Your task to perform on an android device: Clear all items from cart on bestbuy. Add "razer thresher" to the cart on bestbuy, then select checkout. Image 0: 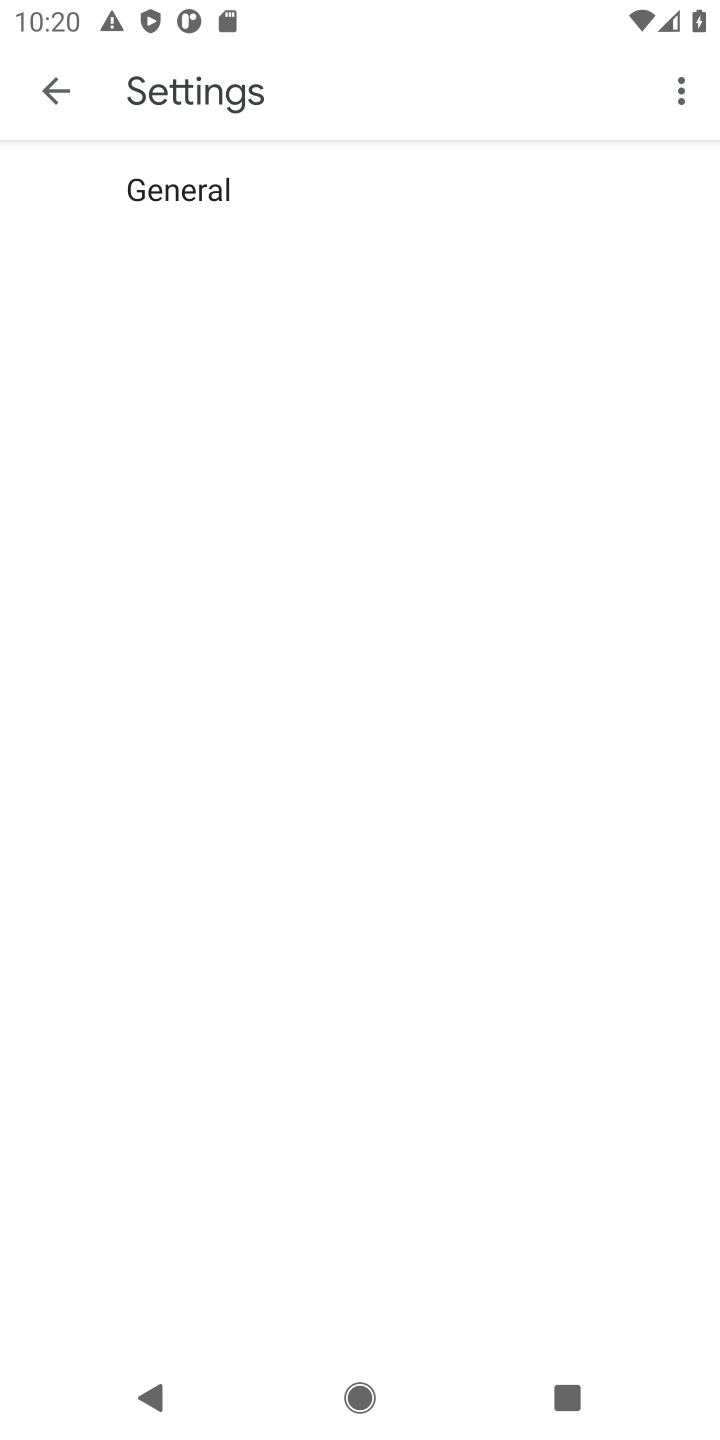
Step 0: press home button
Your task to perform on an android device: Clear all items from cart on bestbuy. Add "razer thresher" to the cart on bestbuy, then select checkout. Image 1: 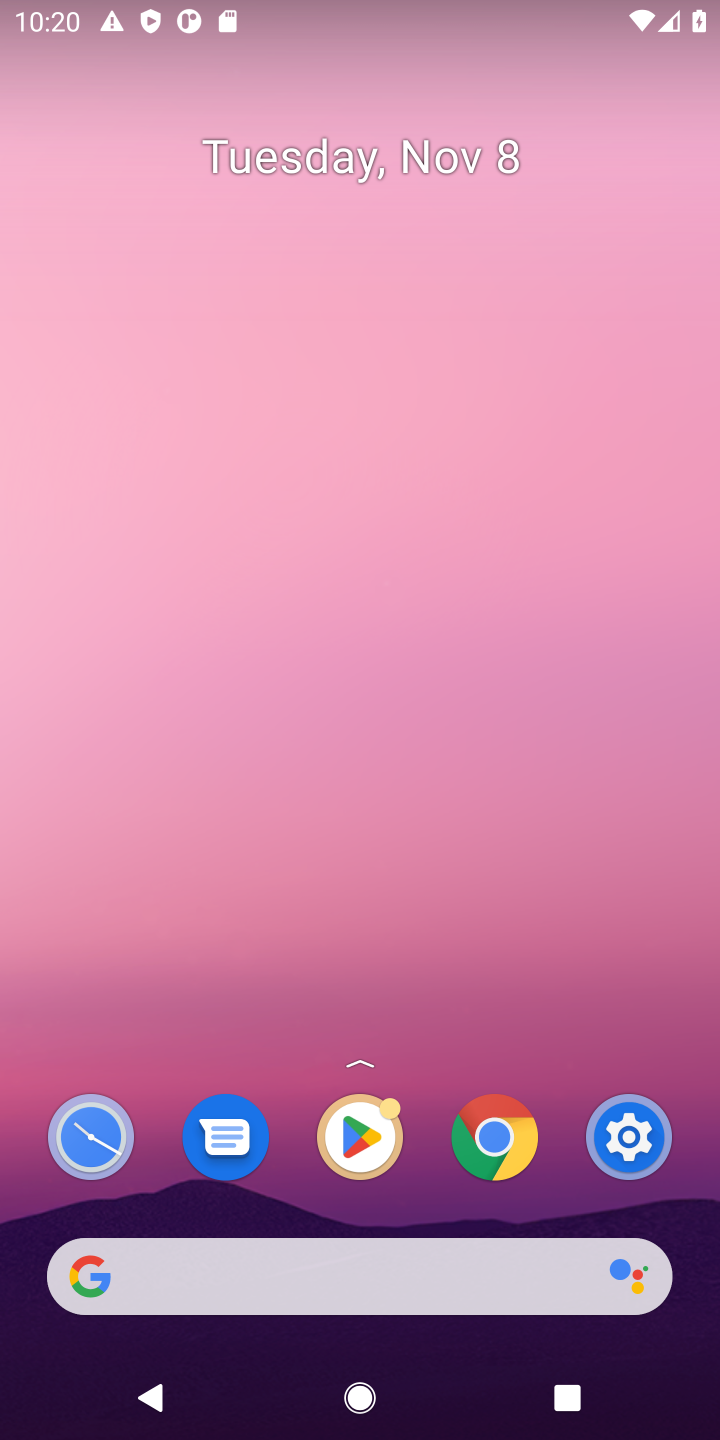
Step 1: click (523, 1148)
Your task to perform on an android device: Clear all items from cart on bestbuy. Add "razer thresher" to the cart on bestbuy, then select checkout. Image 2: 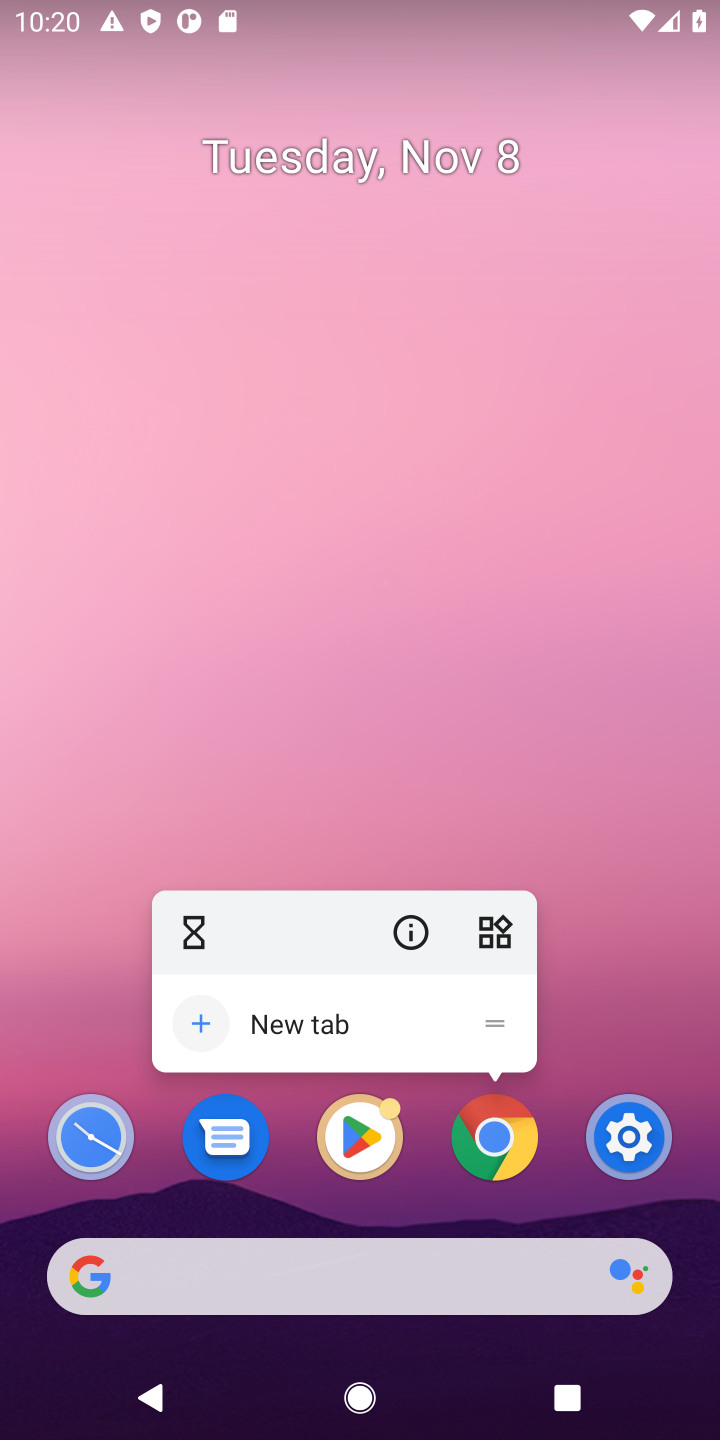
Step 2: click (510, 1132)
Your task to perform on an android device: Clear all items from cart on bestbuy. Add "razer thresher" to the cart on bestbuy, then select checkout. Image 3: 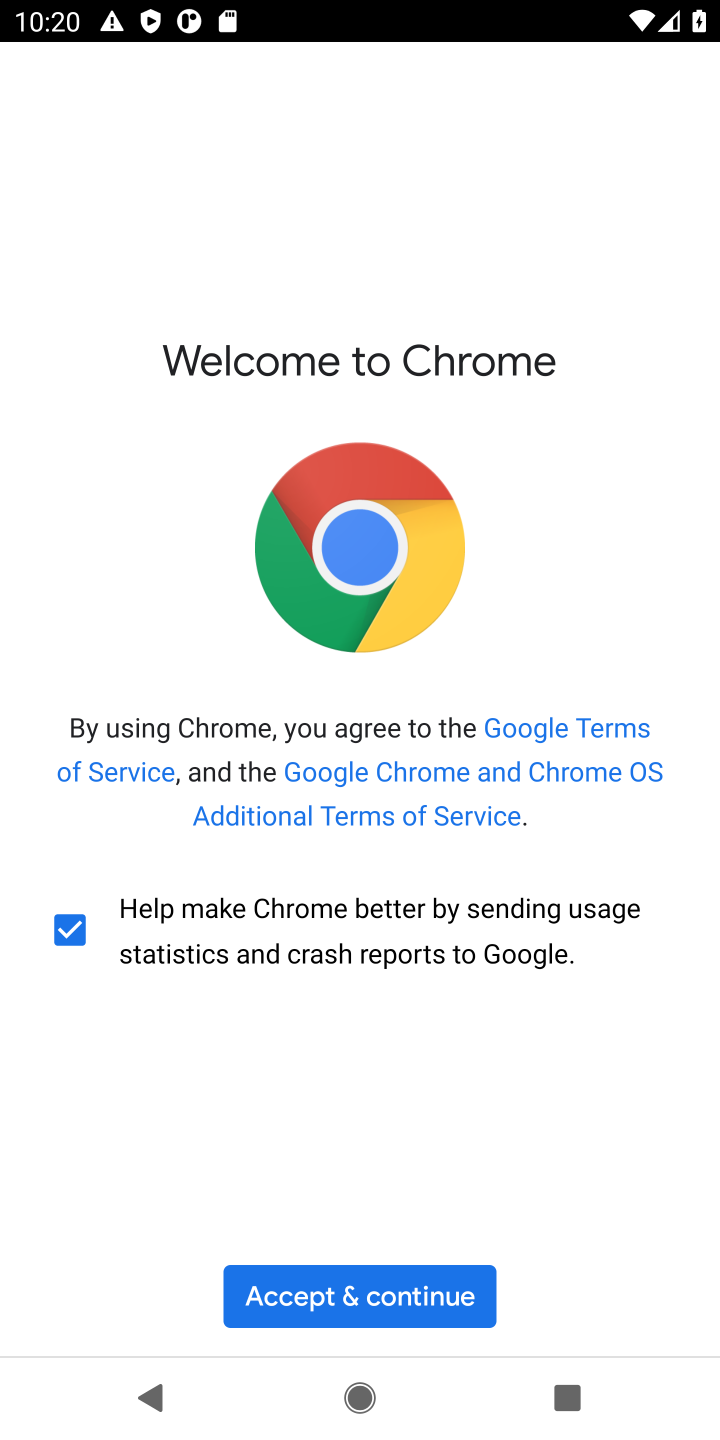
Step 3: click (372, 1296)
Your task to perform on an android device: Clear all items from cart on bestbuy. Add "razer thresher" to the cart on bestbuy, then select checkout. Image 4: 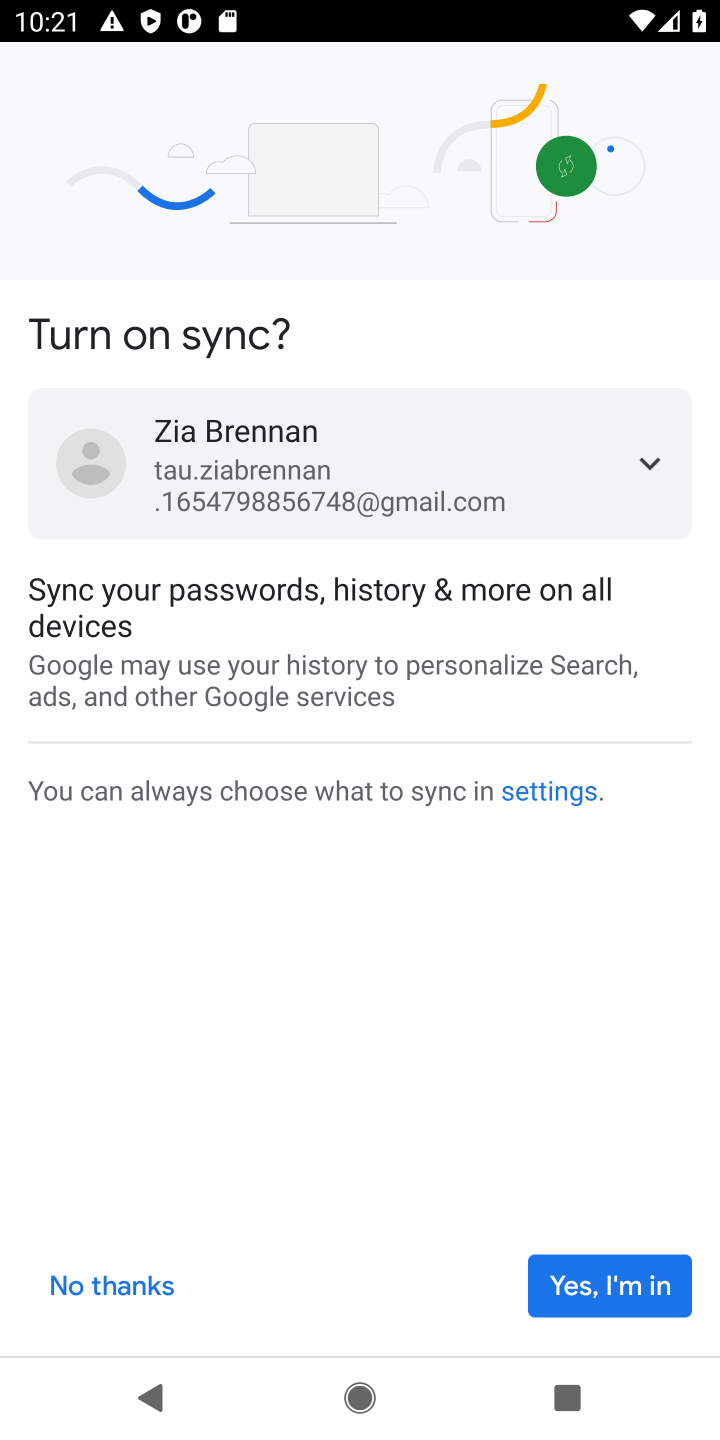
Step 4: click (601, 1273)
Your task to perform on an android device: Clear all items from cart on bestbuy. Add "razer thresher" to the cart on bestbuy, then select checkout. Image 5: 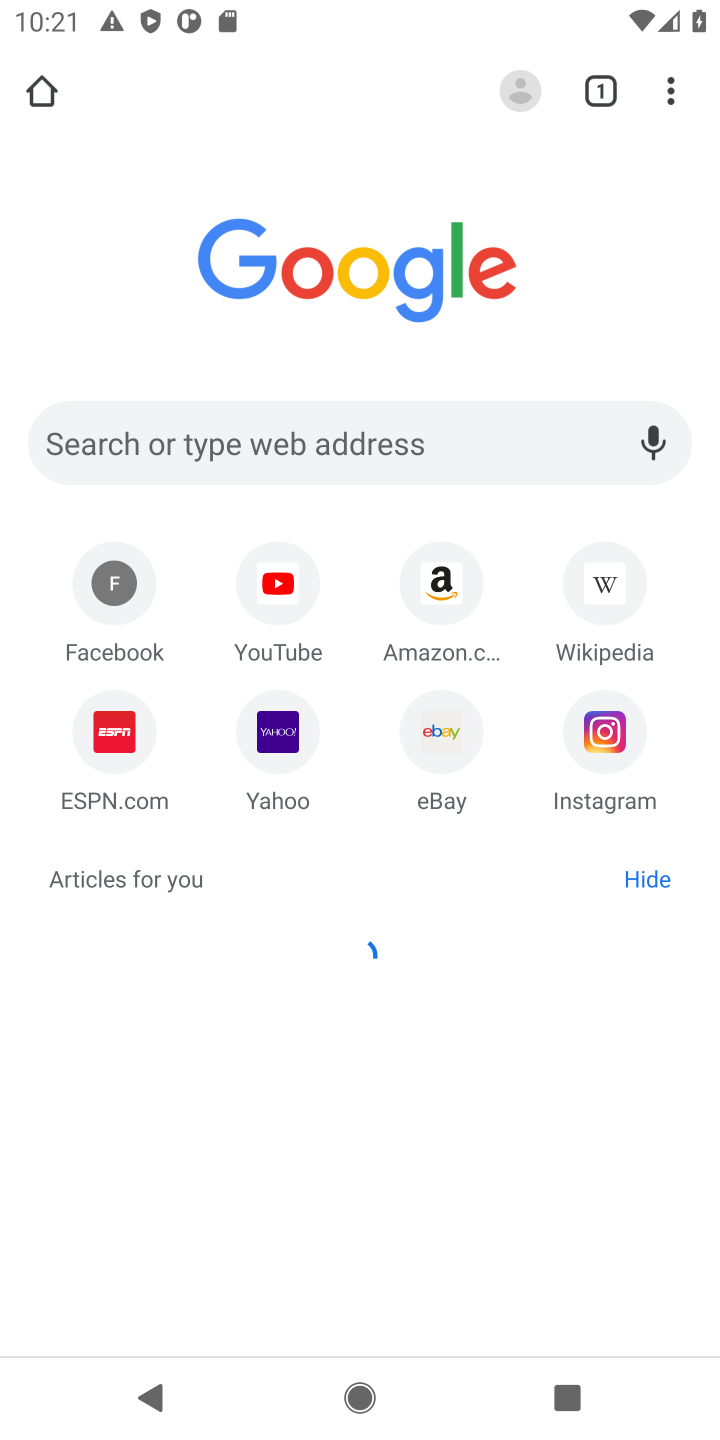
Step 5: click (338, 436)
Your task to perform on an android device: Clear all items from cart on bestbuy. Add "razer thresher" to the cart on bestbuy, then select checkout. Image 6: 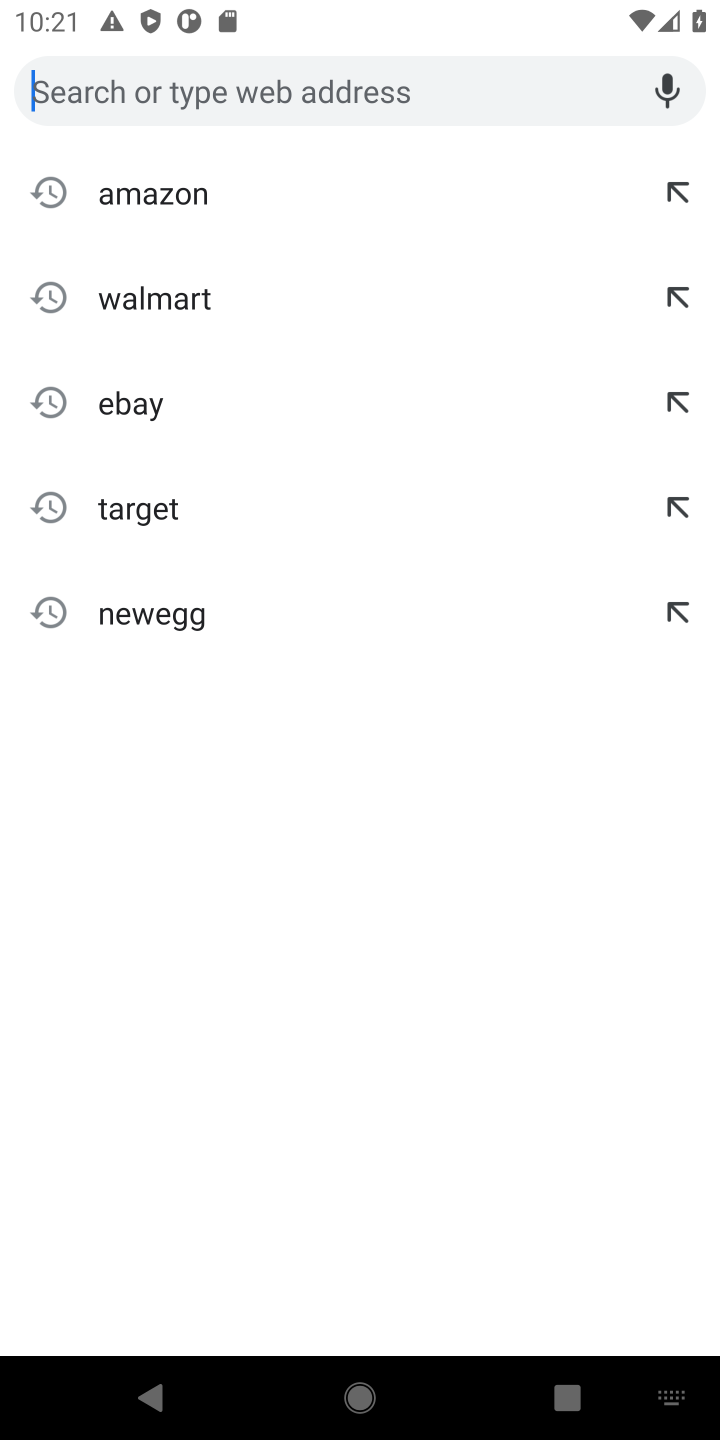
Step 6: type "bestbuy"
Your task to perform on an android device: Clear all items from cart on bestbuy. Add "razer thresher" to the cart on bestbuy, then select checkout. Image 7: 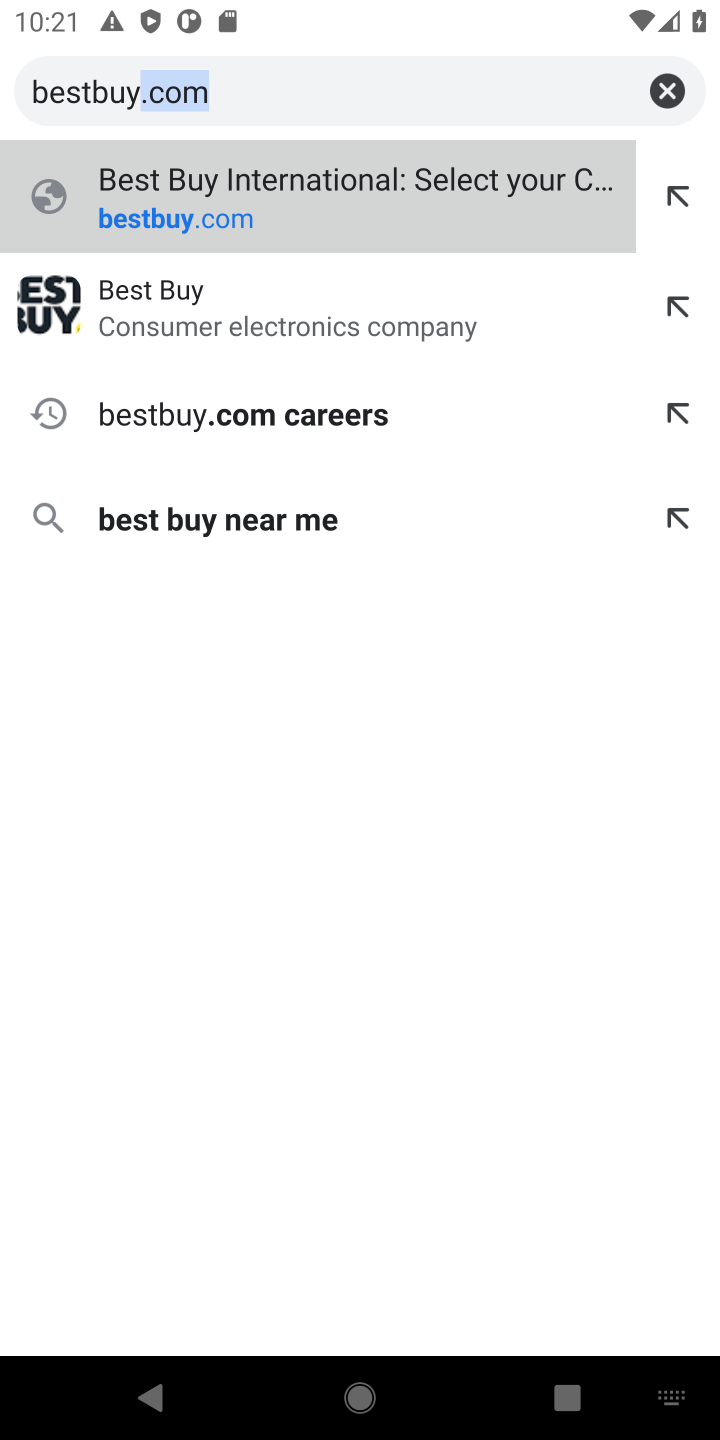
Step 7: click (123, 195)
Your task to perform on an android device: Clear all items from cart on bestbuy. Add "razer thresher" to the cart on bestbuy, then select checkout. Image 8: 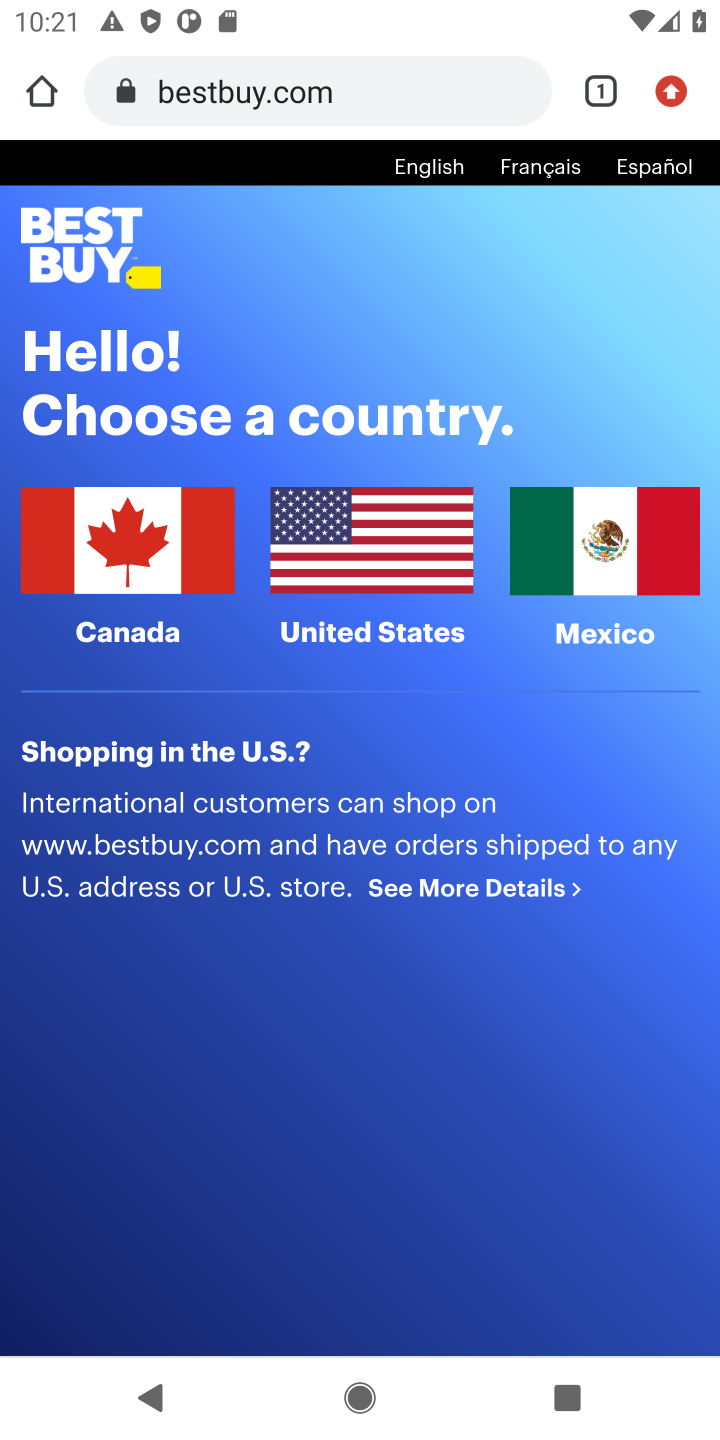
Step 8: click (337, 547)
Your task to perform on an android device: Clear all items from cart on bestbuy. Add "razer thresher" to the cart on bestbuy, then select checkout. Image 9: 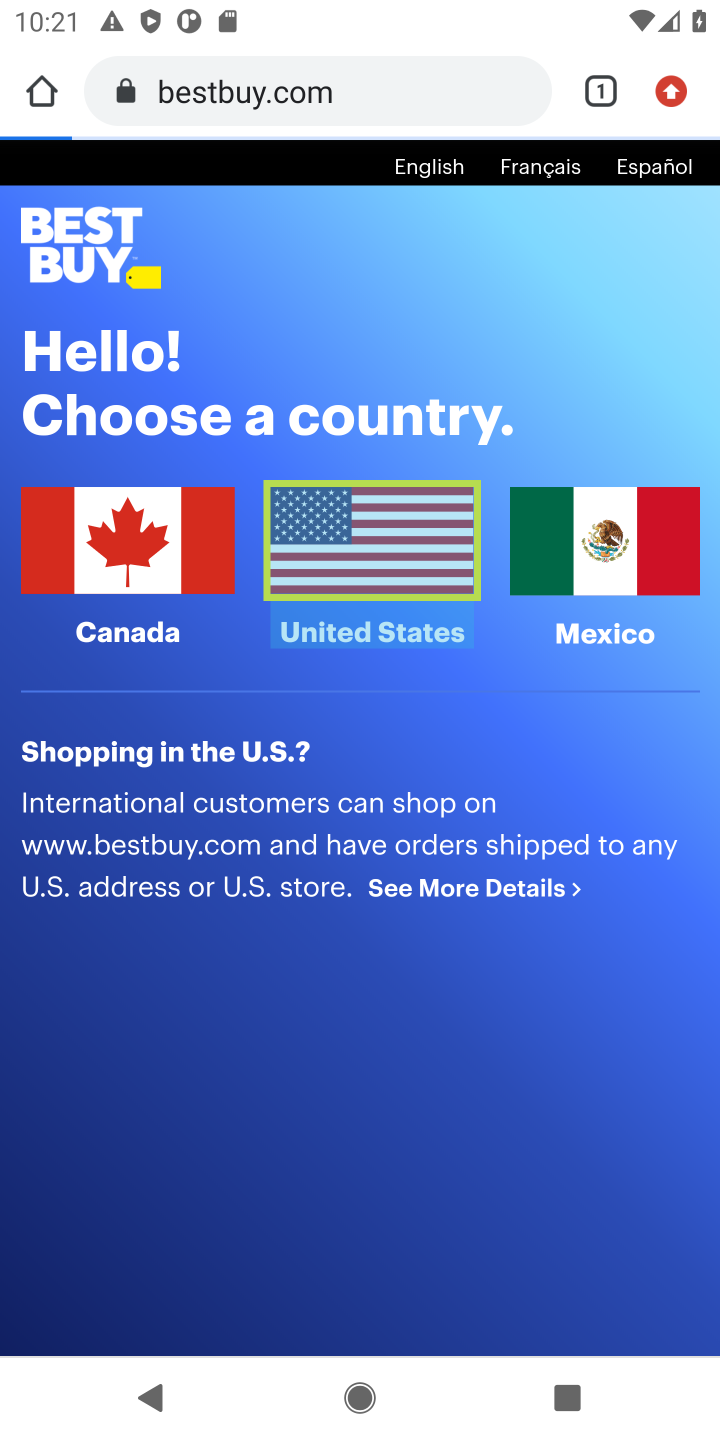
Step 9: click (412, 547)
Your task to perform on an android device: Clear all items from cart on bestbuy. Add "razer thresher" to the cart on bestbuy, then select checkout. Image 10: 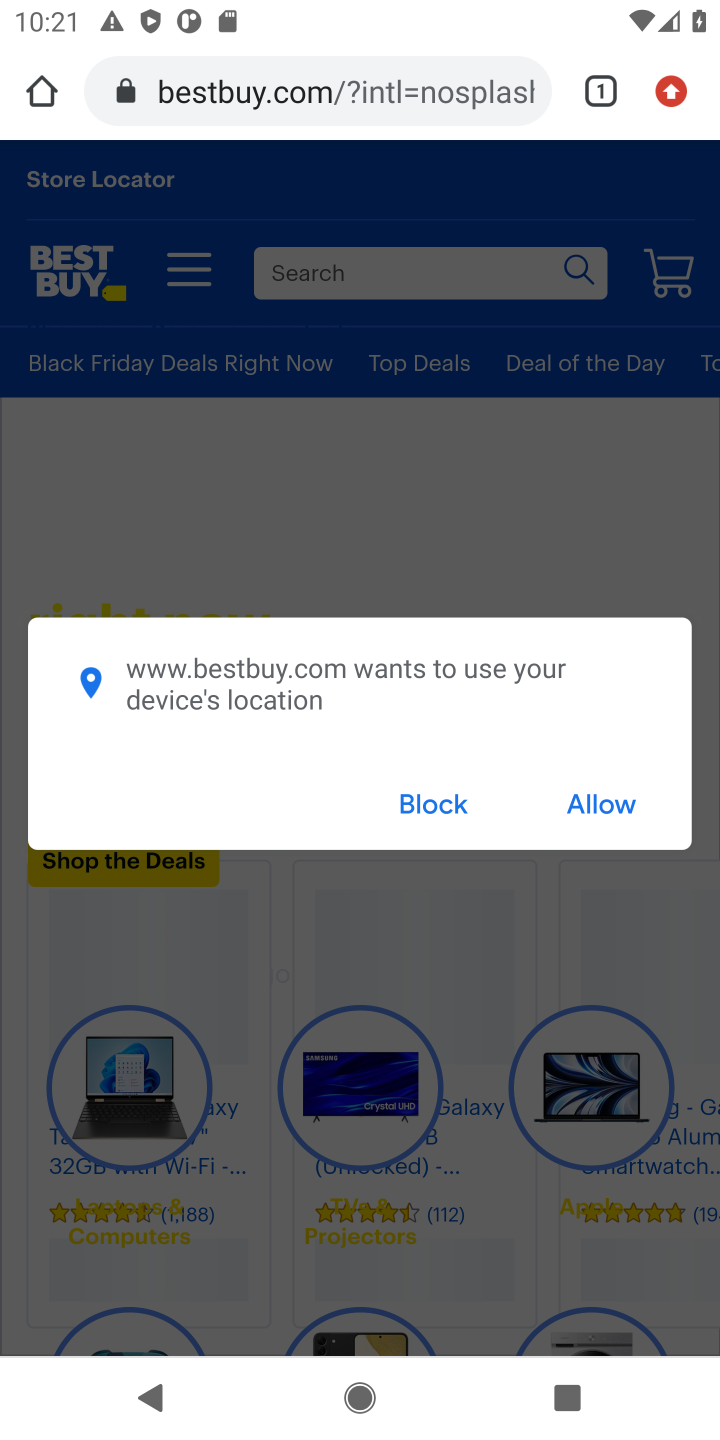
Step 10: click (436, 796)
Your task to perform on an android device: Clear all items from cart on bestbuy. Add "razer thresher" to the cart on bestbuy, then select checkout. Image 11: 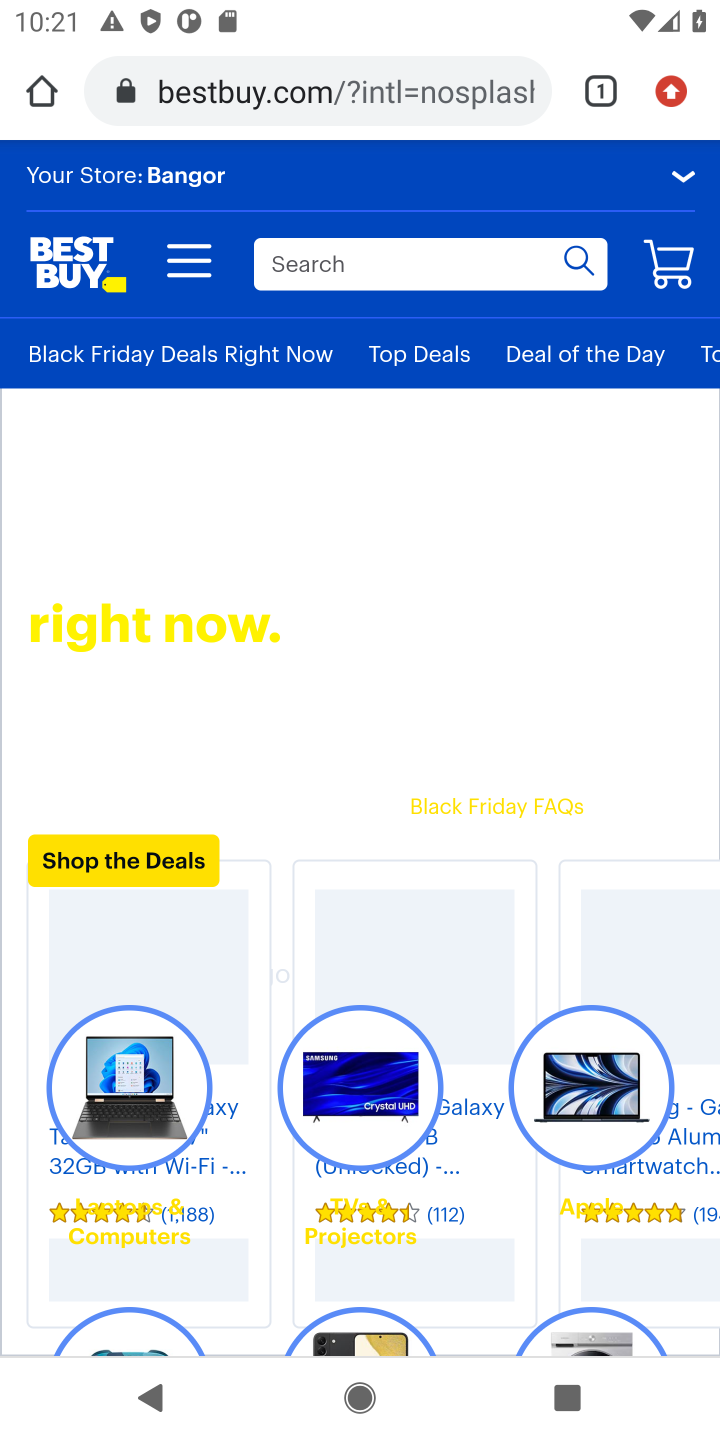
Step 11: click (370, 272)
Your task to perform on an android device: Clear all items from cart on bestbuy. Add "razer thresher" to the cart on bestbuy, then select checkout. Image 12: 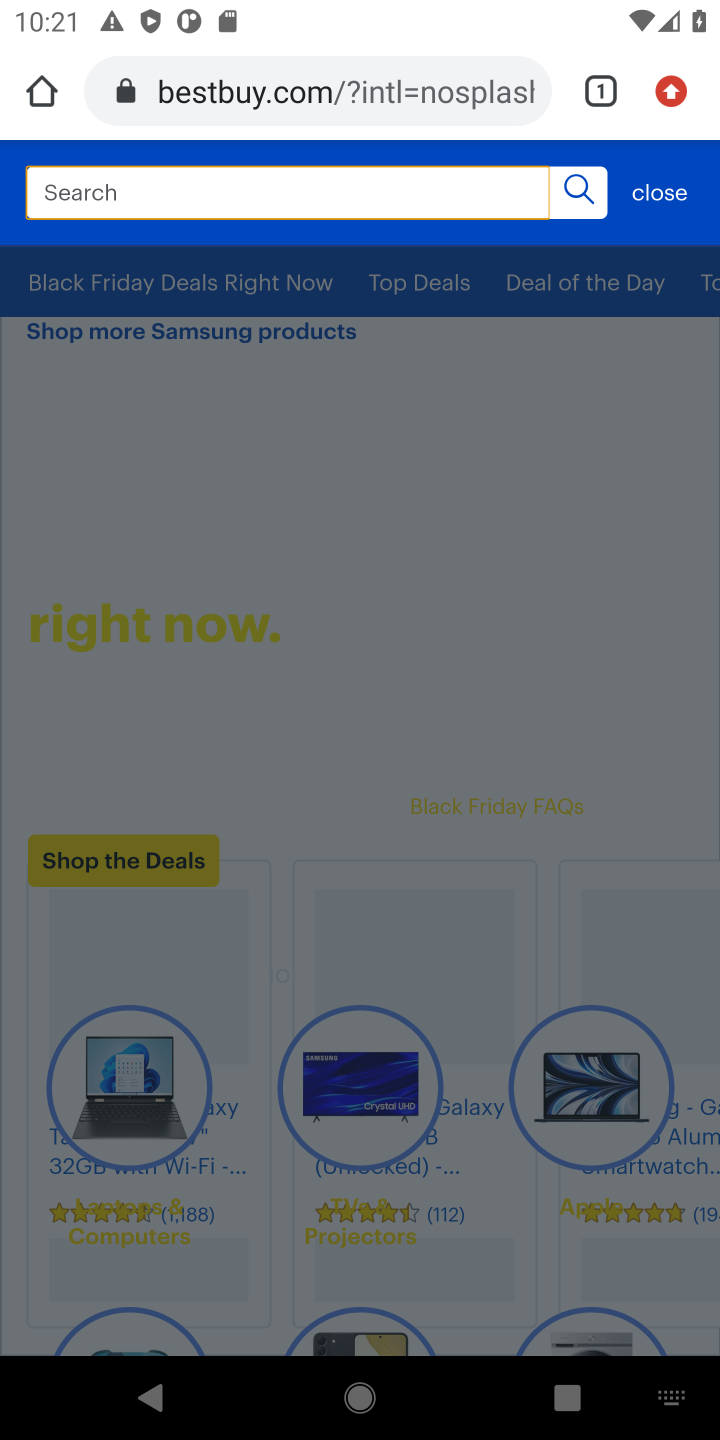
Step 12: type "razer thresher"
Your task to perform on an android device: Clear all items from cart on bestbuy. Add "razer thresher" to the cart on bestbuy, then select checkout. Image 13: 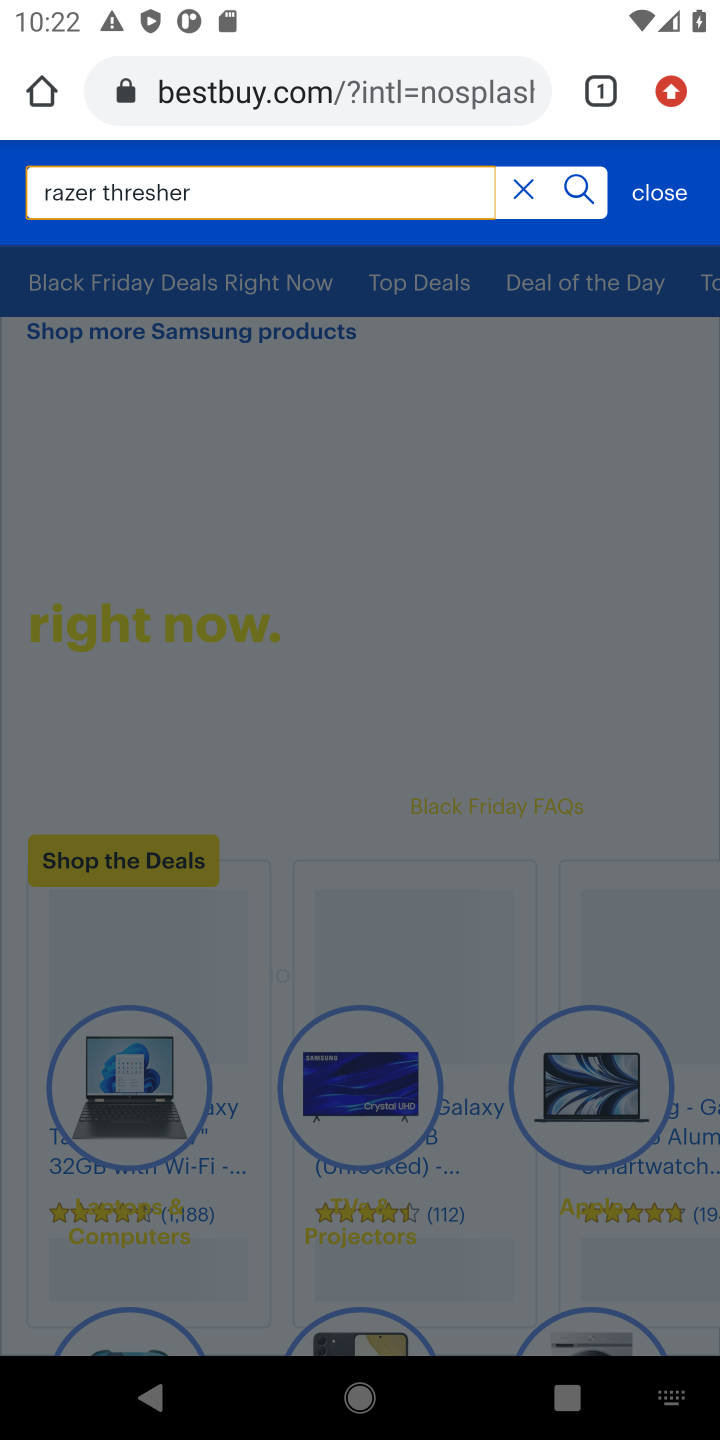
Step 13: click (582, 193)
Your task to perform on an android device: Clear all items from cart on bestbuy. Add "razer thresher" to the cart on bestbuy, then select checkout. Image 14: 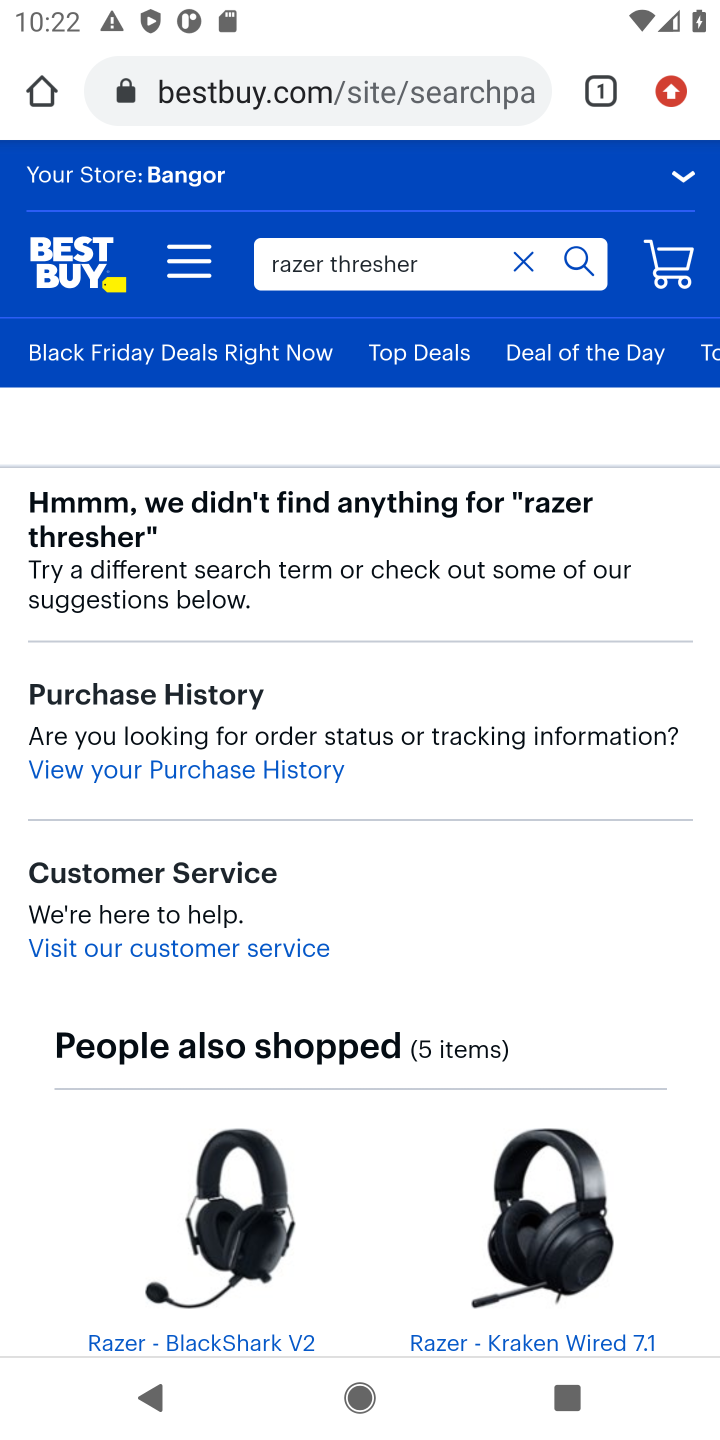
Step 14: drag from (389, 1007) to (454, 607)
Your task to perform on an android device: Clear all items from cart on bestbuy. Add "razer thresher" to the cart on bestbuy, then select checkout. Image 15: 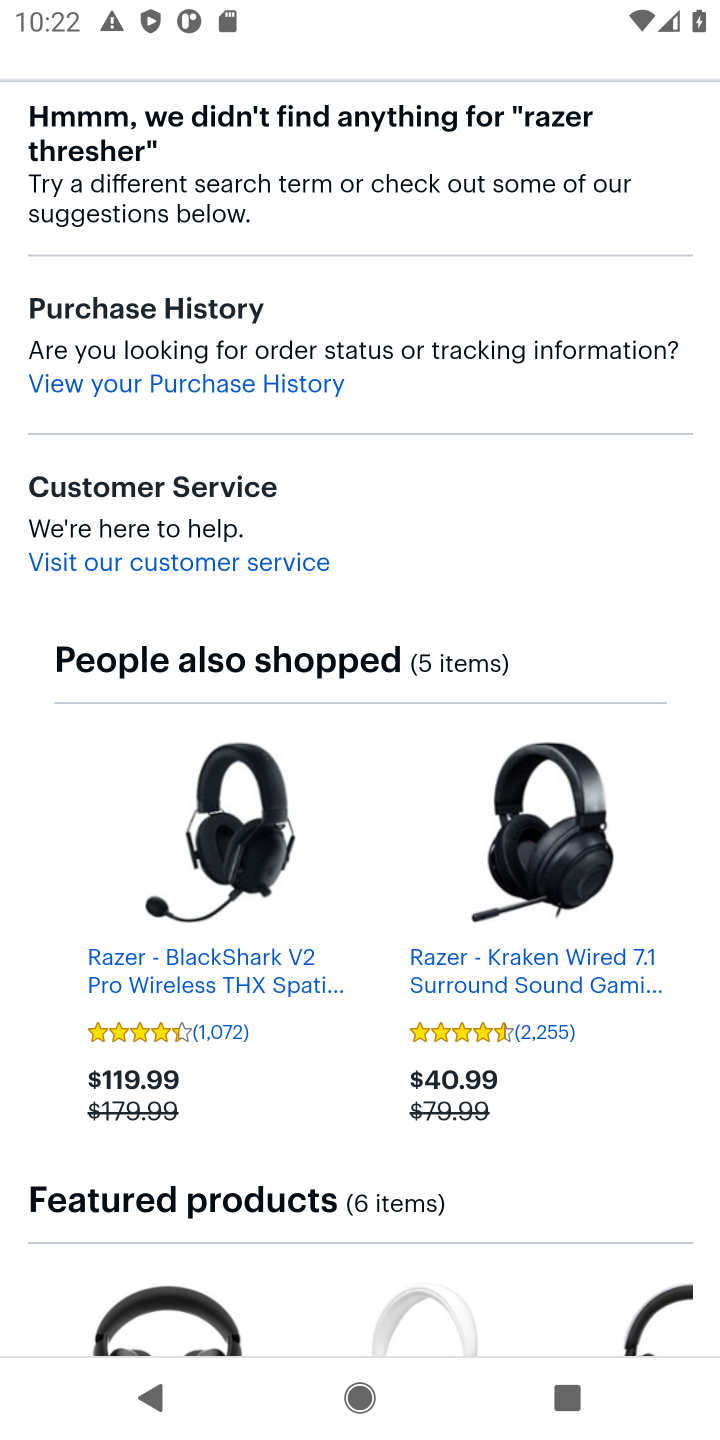
Step 15: click (270, 973)
Your task to perform on an android device: Clear all items from cart on bestbuy. Add "razer thresher" to the cart on bestbuy, then select checkout. Image 16: 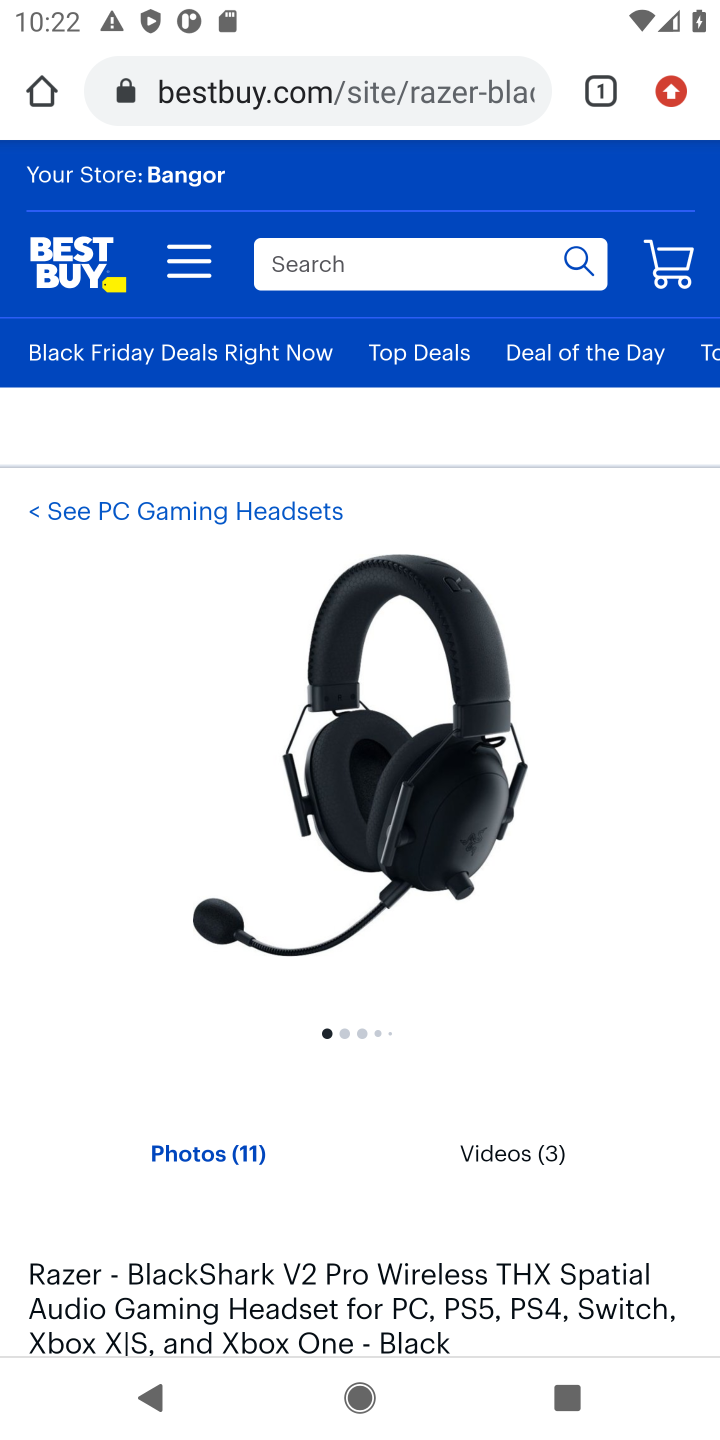
Step 16: drag from (404, 1194) to (529, 565)
Your task to perform on an android device: Clear all items from cart on bestbuy. Add "razer thresher" to the cart on bestbuy, then select checkout. Image 17: 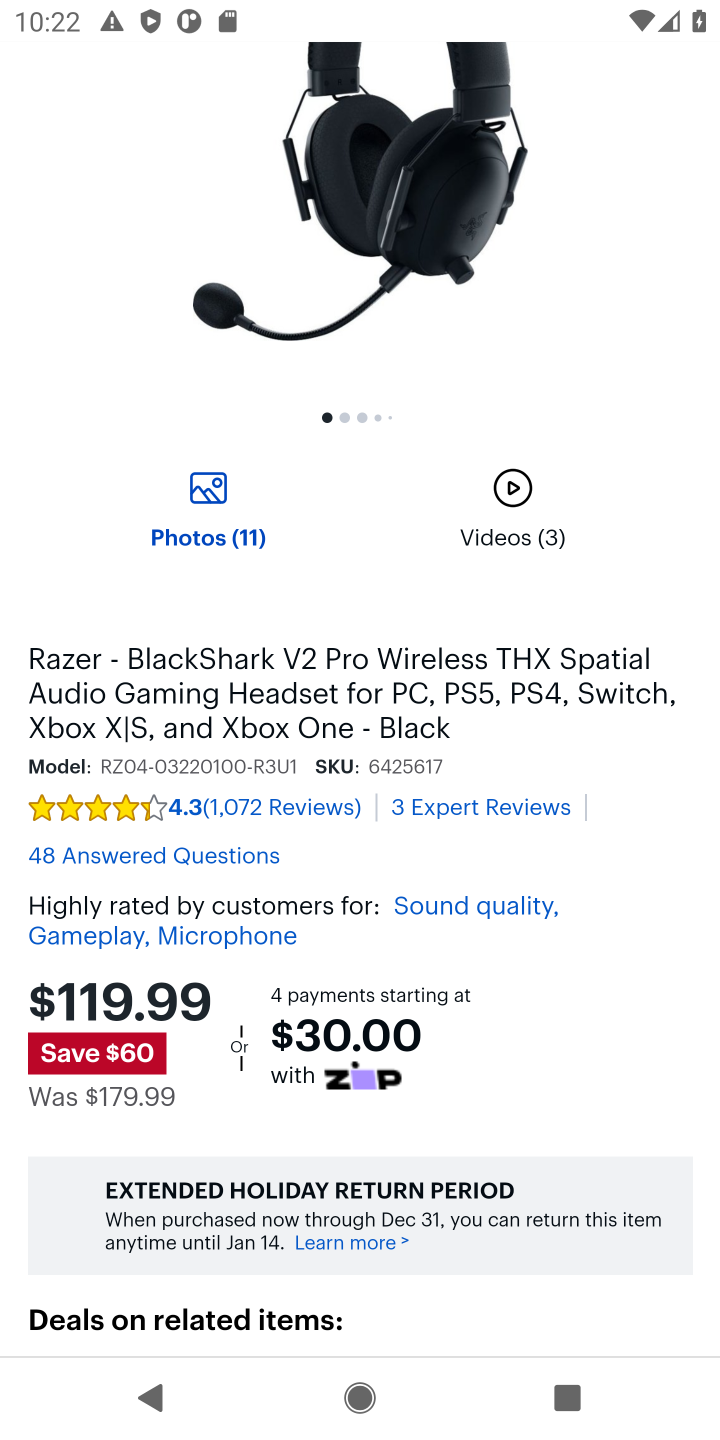
Step 17: drag from (466, 1219) to (488, 345)
Your task to perform on an android device: Clear all items from cart on bestbuy. Add "razer thresher" to the cart on bestbuy, then select checkout. Image 18: 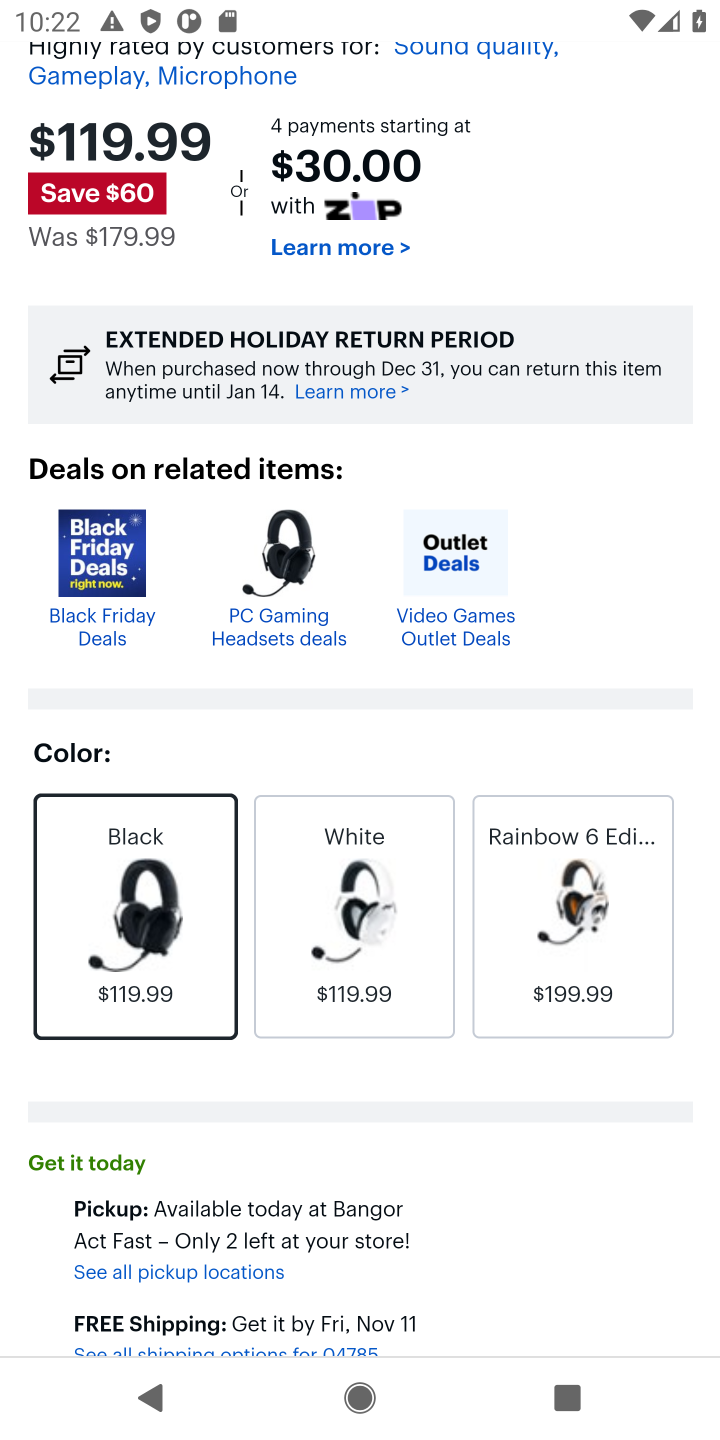
Step 18: drag from (405, 1162) to (498, 744)
Your task to perform on an android device: Clear all items from cart on bestbuy. Add "razer thresher" to the cart on bestbuy, then select checkout. Image 19: 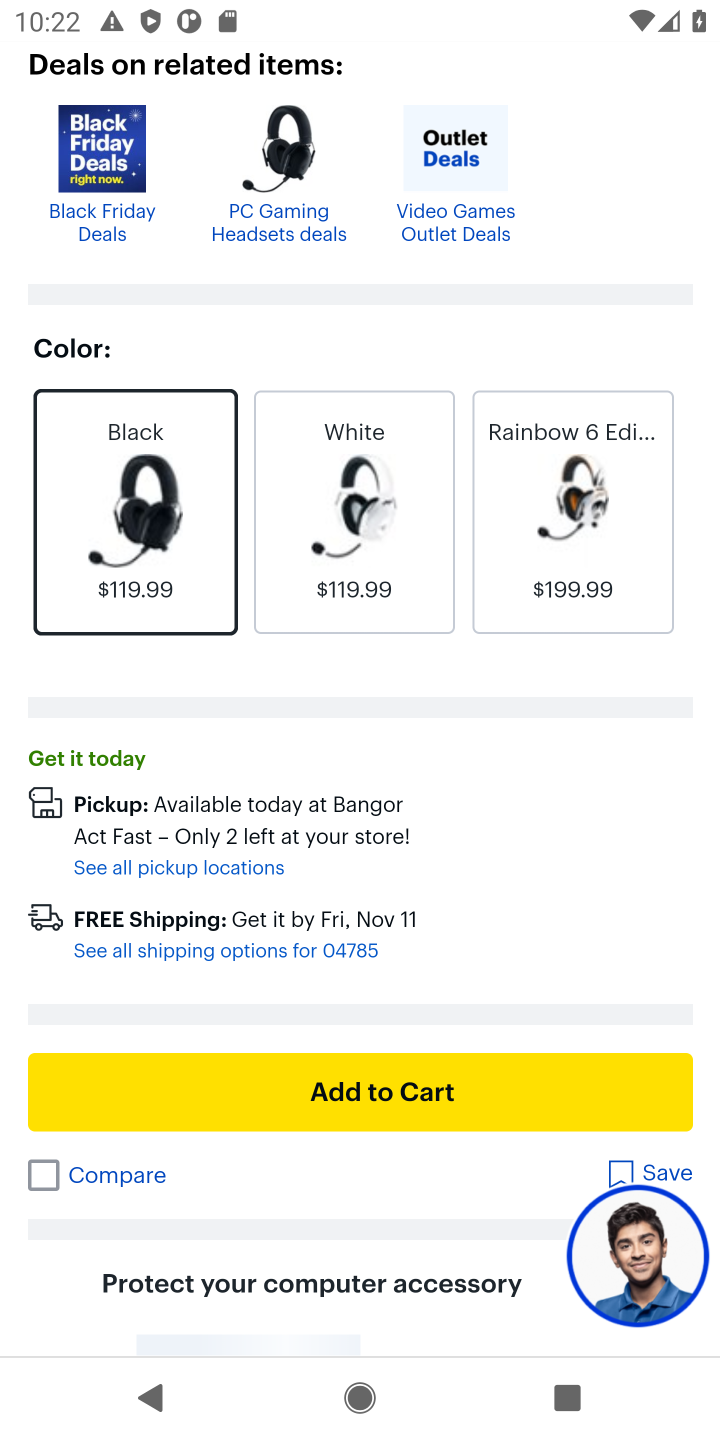
Step 19: click (435, 1081)
Your task to perform on an android device: Clear all items from cart on bestbuy. Add "razer thresher" to the cart on bestbuy, then select checkout. Image 20: 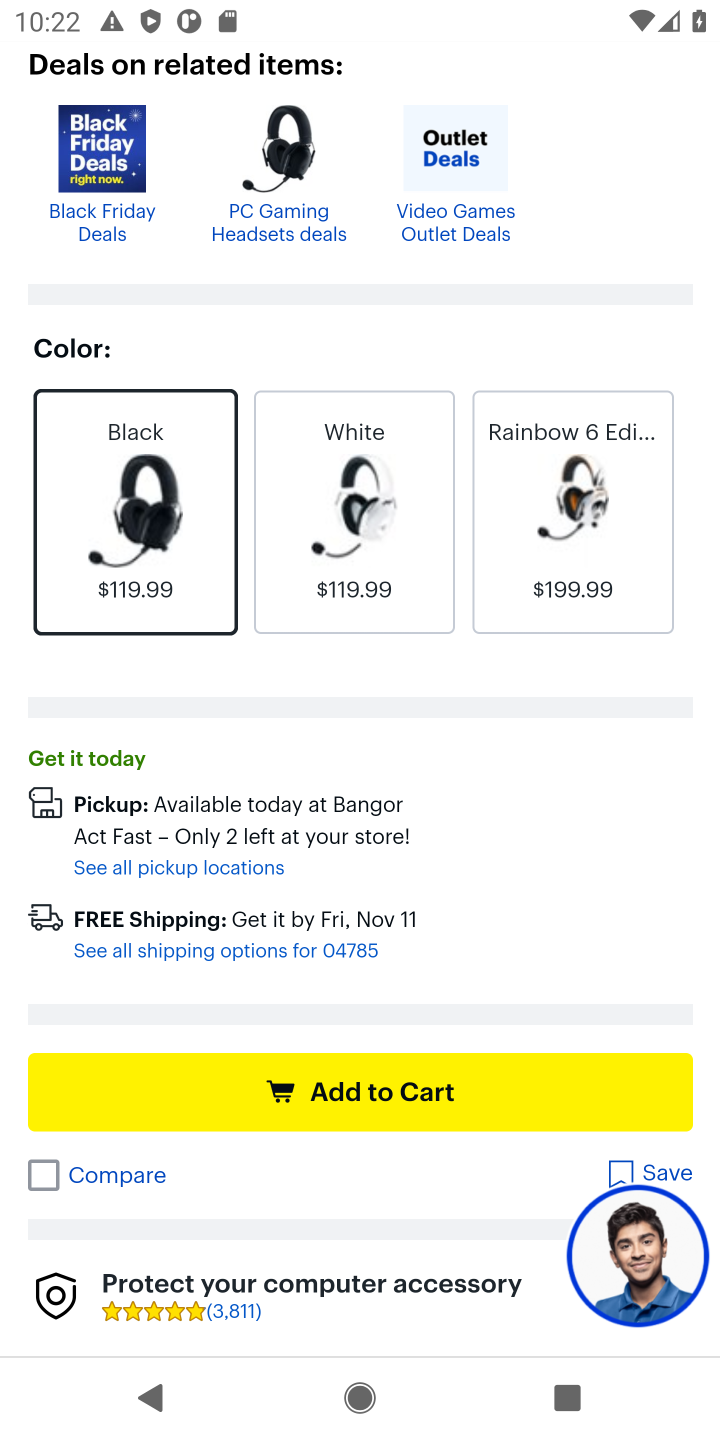
Step 20: click (675, 92)
Your task to perform on an android device: Clear all items from cart on bestbuy. Add "razer thresher" to the cart on bestbuy, then select checkout. Image 21: 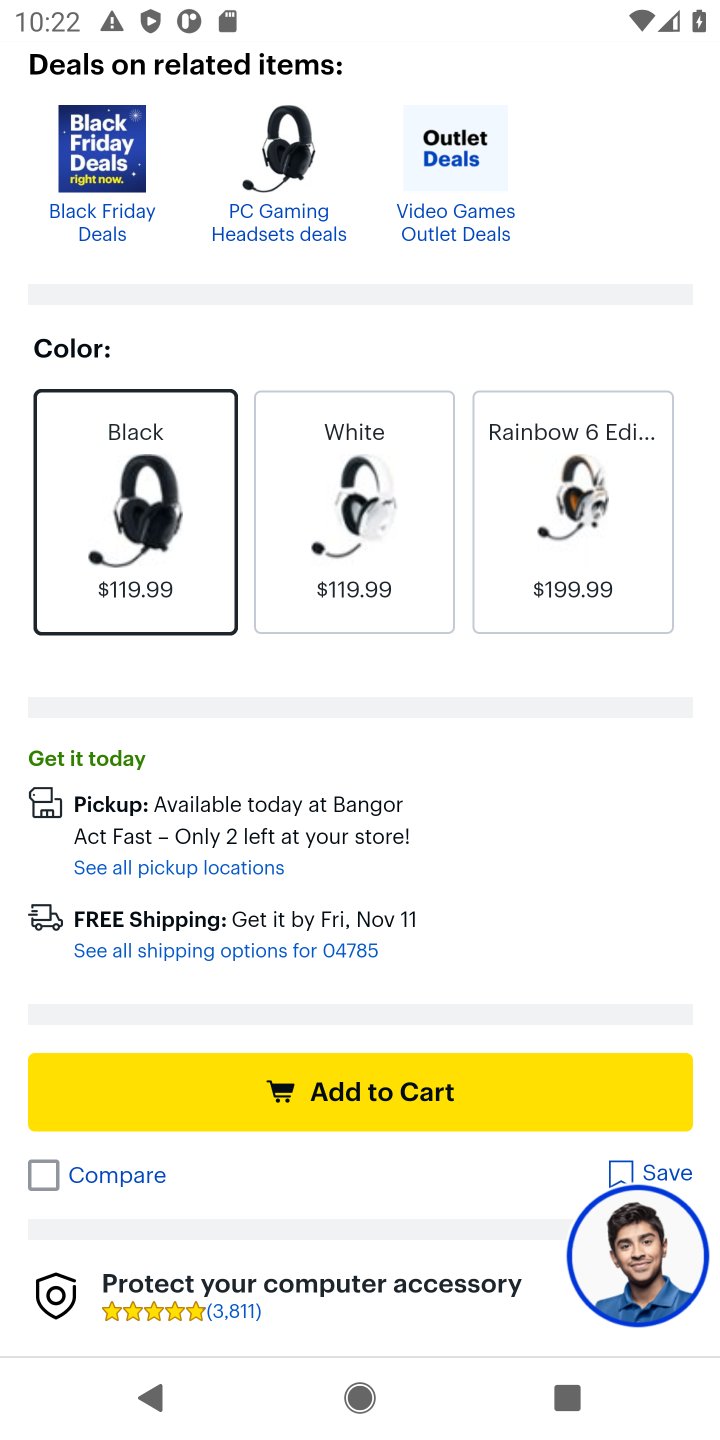
Step 21: drag from (675, 92) to (688, 1323)
Your task to perform on an android device: Clear all items from cart on bestbuy. Add "razer thresher" to the cart on bestbuy, then select checkout. Image 22: 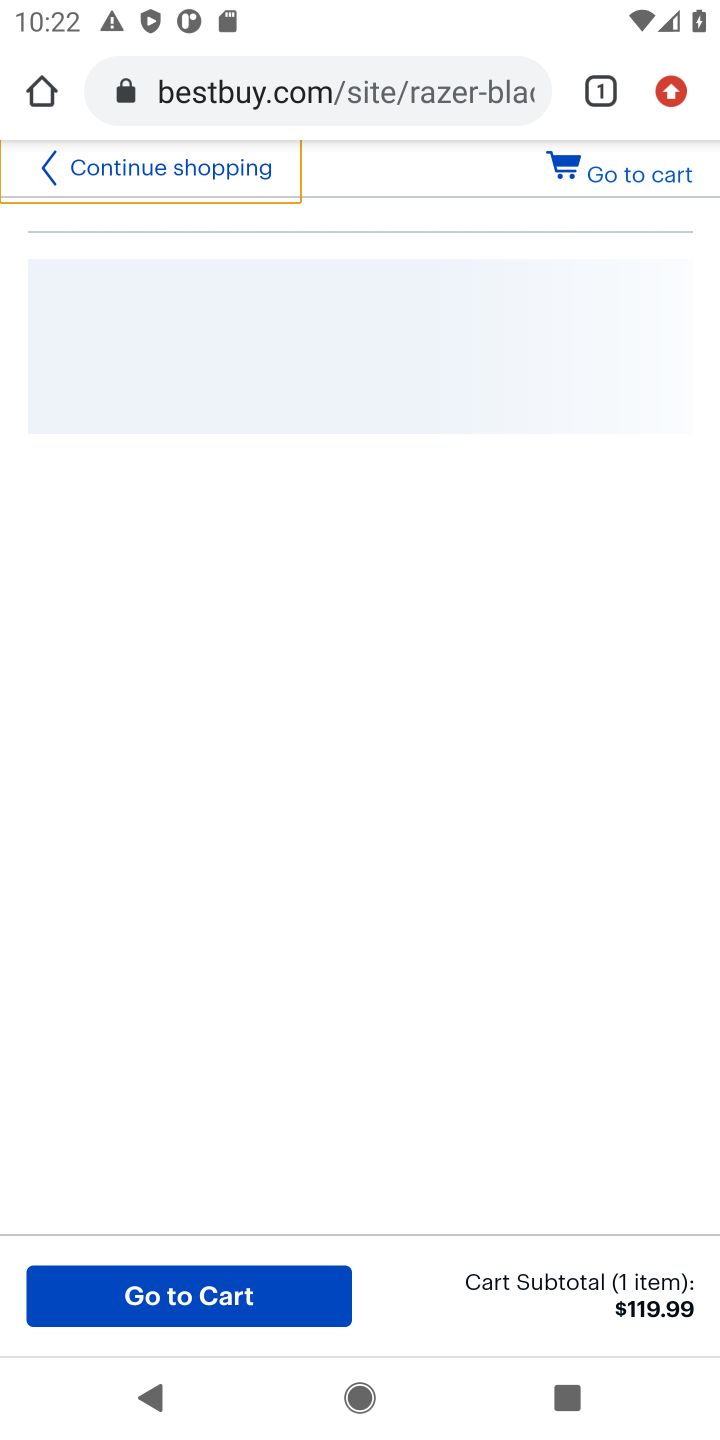
Step 22: click (585, 166)
Your task to perform on an android device: Clear all items from cart on bestbuy. Add "razer thresher" to the cart on bestbuy, then select checkout. Image 23: 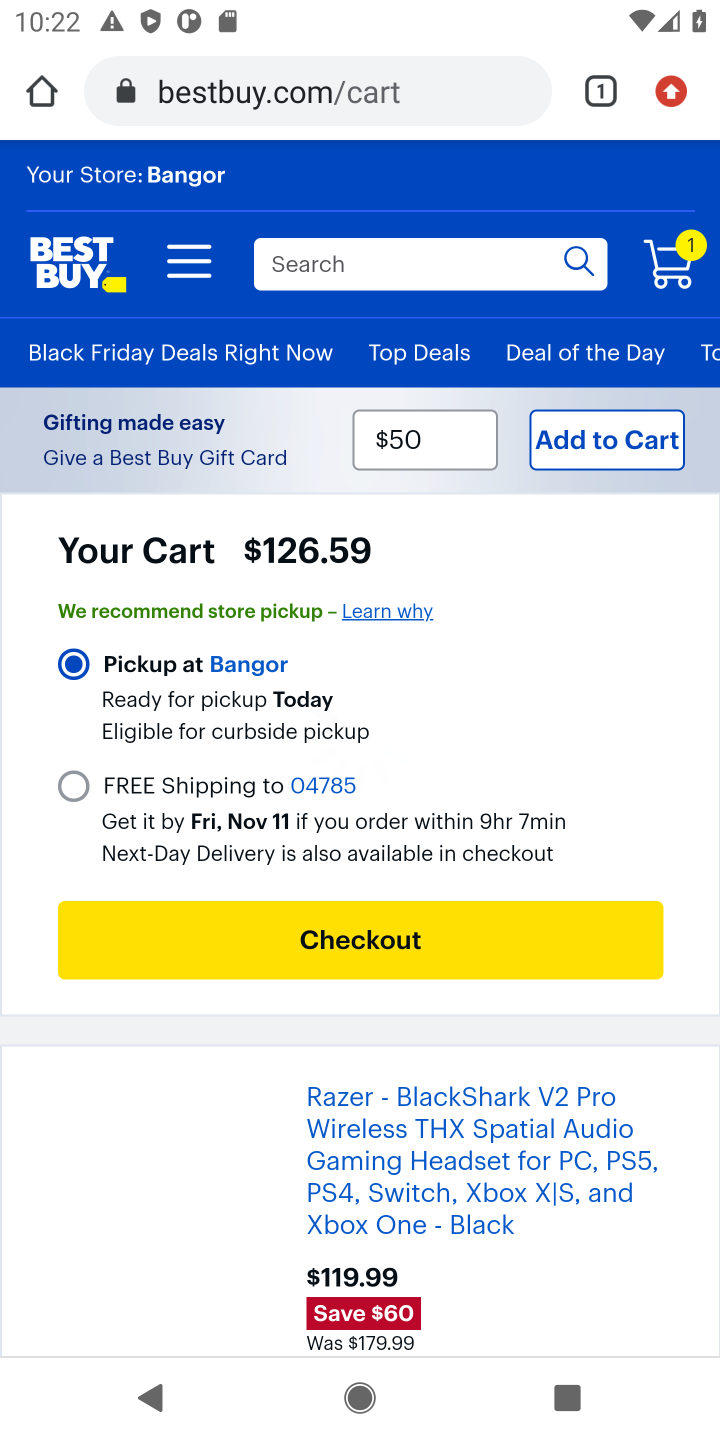
Step 23: click (371, 944)
Your task to perform on an android device: Clear all items from cart on bestbuy. Add "razer thresher" to the cart on bestbuy, then select checkout. Image 24: 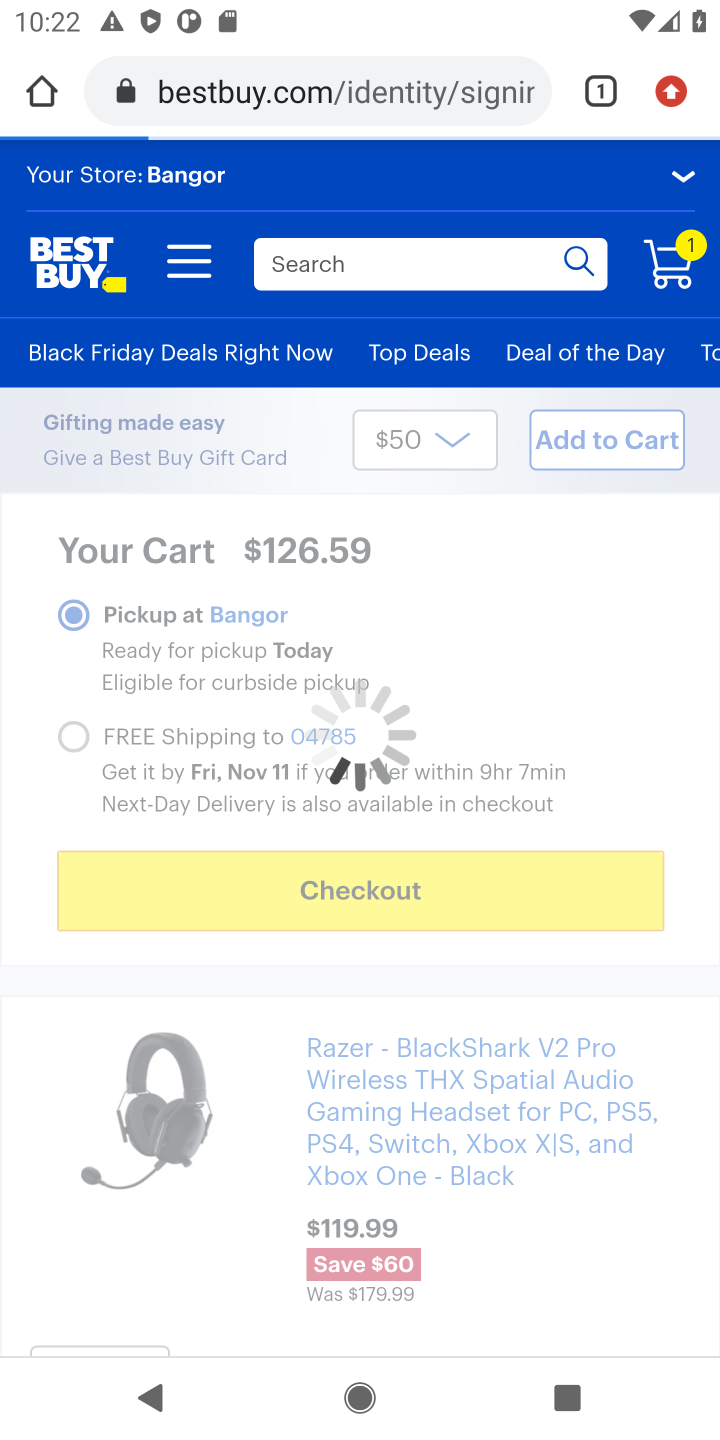
Step 24: task complete